Your task to perform on an android device: Find coffee shops on Maps Image 0: 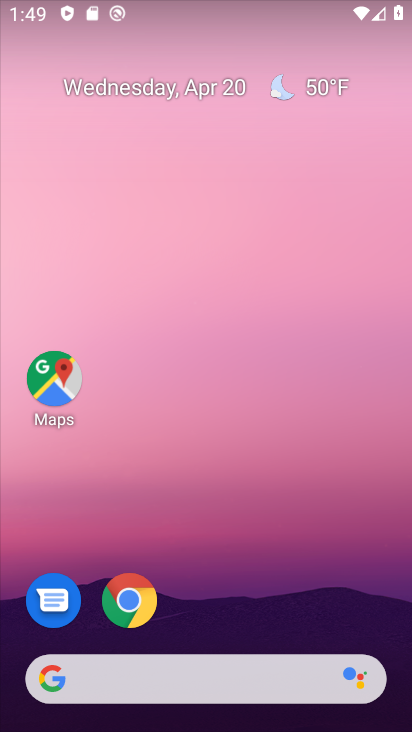
Step 0: click (59, 397)
Your task to perform on an android device: Find coffee shops on Maps Image 1: 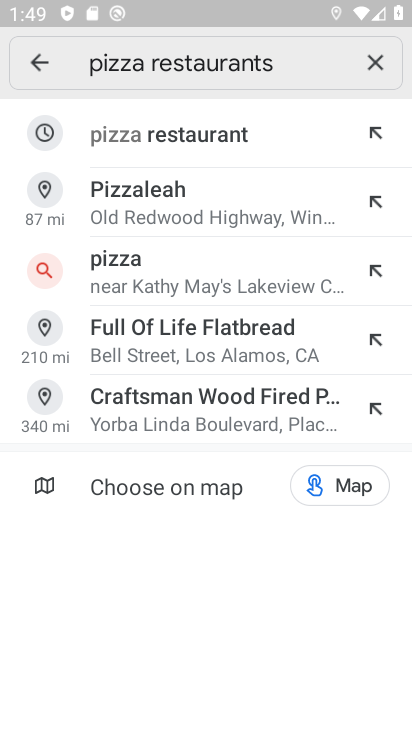
Step 1: click (392, 61)
Your task to perform on an android device: Find coffee shops on Maps Image 2: 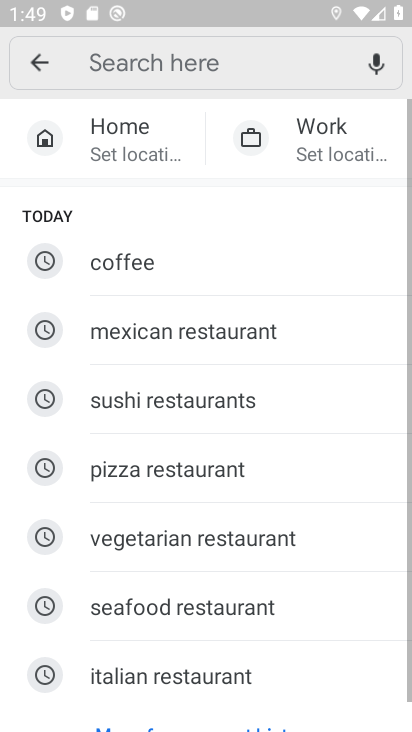
Step 2: click (194, 68)
Your task to perform on an android device: Find coffee shops on Maps Image 3: 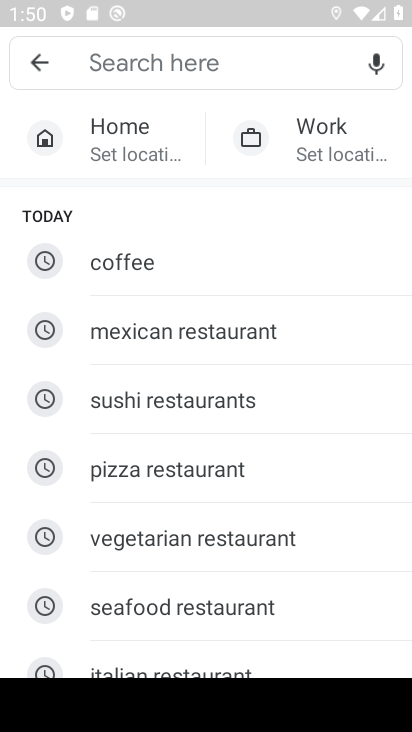
Step 3: type "coffee shops"
Your task to perform on an android device: Find coffee shops on Maps Image 4: 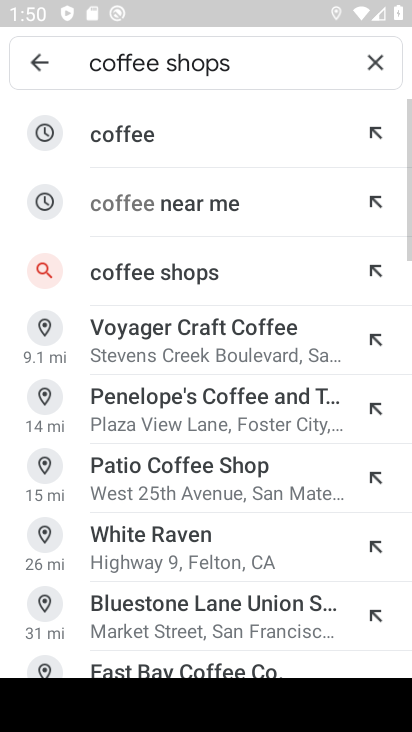
Step 4: task complete